Your task to perform on an android device: Go to privacy settings Image 0: 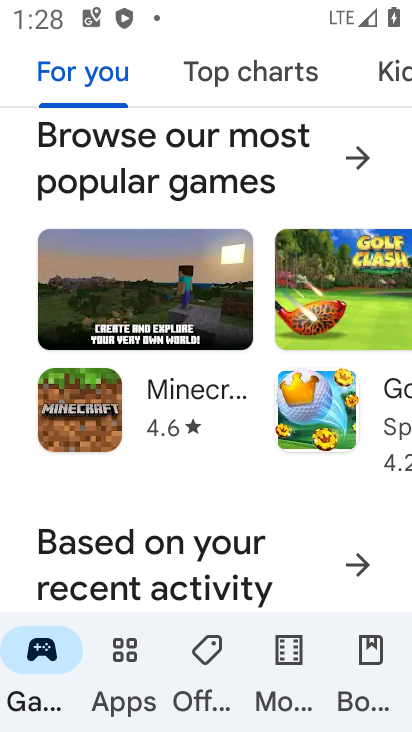
Step 0: press home button
Your task to perform on an android device: Go to privacy settings Image 1: 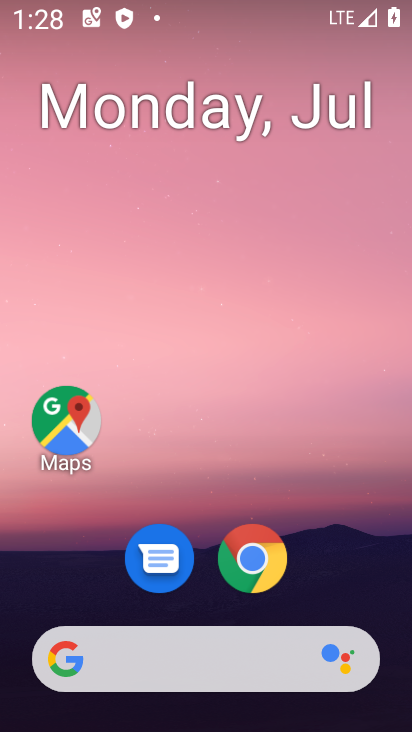
Step 1: drag from (380, 585) to (385, 133)
Your task to perform on an android device: Go to privacy settings Image 2: 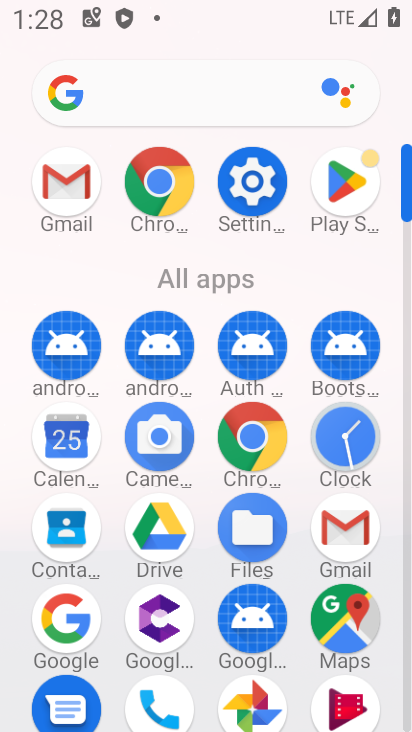
Step 2: click (269, 194)
Your task to perform on an android device: Go to privacy settings Image 3: 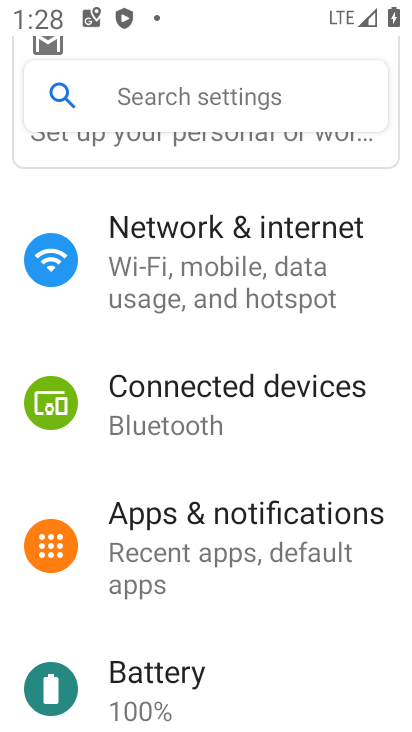
Step 3: click (363, 500)
Your task to perform on an android device: Go to privacy settings Image 4: 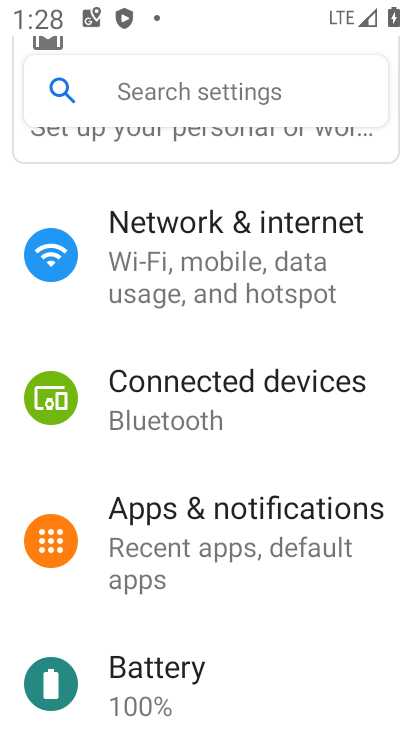
Step 4: drag from (359, 593) to (361, 499)
Your task to perform on an android device: Go to privacy settings Image 5: 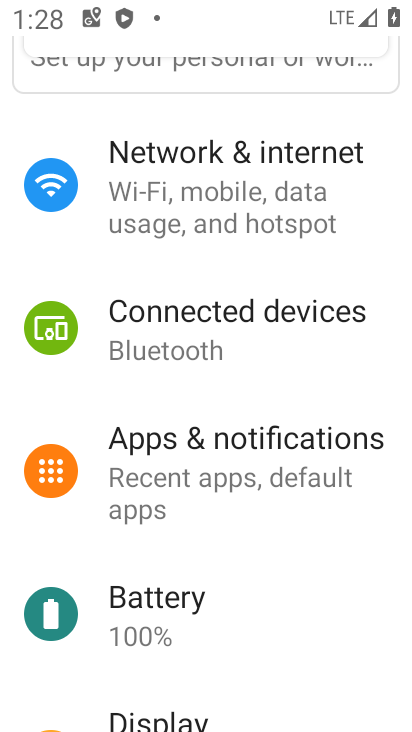
Step 5: drag from (358, 576) to (358, 493)
Your task to perform on an android device: Go to privacy settings Image 6: 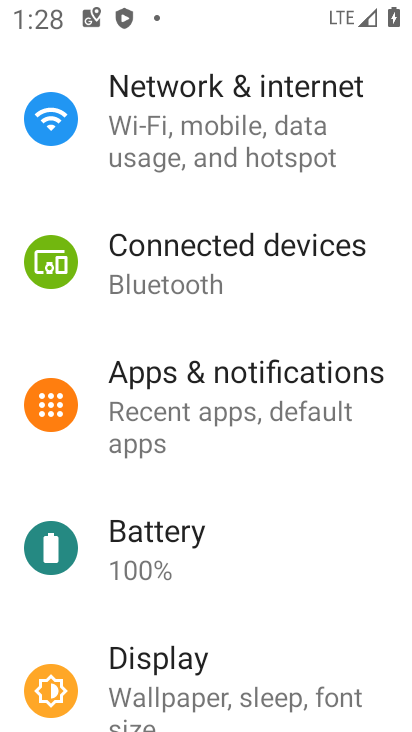
Step 6: drag from (363, 585) to (363, 504)
Your task to perform on an android device: Go to privacy settings Image 7: 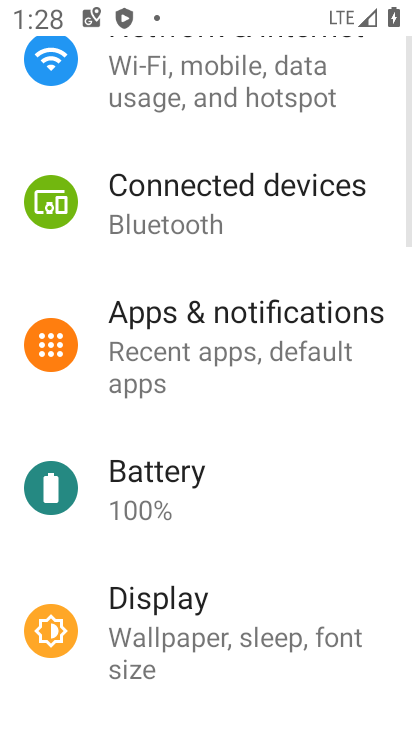
Step 7: drag from (367, 612) to (366, 490)
Your task to perform on an android device: Go to privacy settings Image 8: 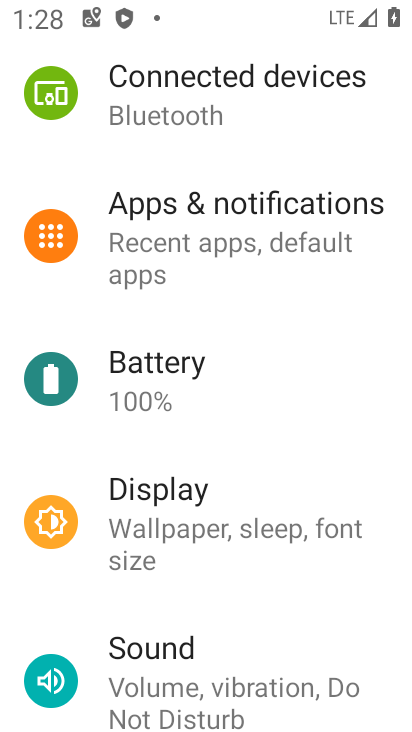
Step 8: drag from (352, 603) to (370, 505)
Your task to perform on an android device: Go to privacy settings Image 9: 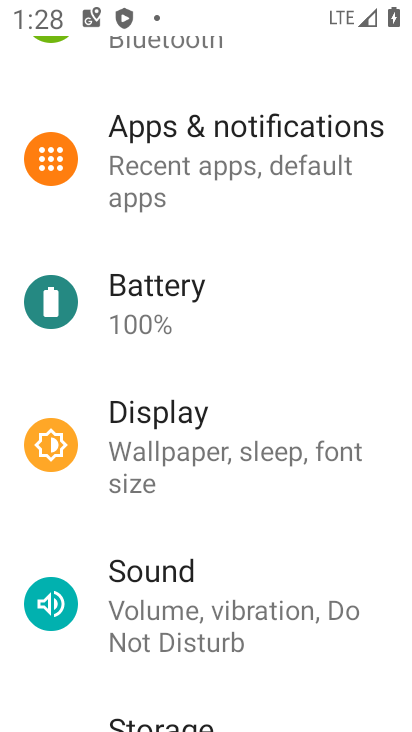
Step 9: drag from (359, 630) to (363, 513)
Your task to perform on an android device: Go to privacy settings Image 10: 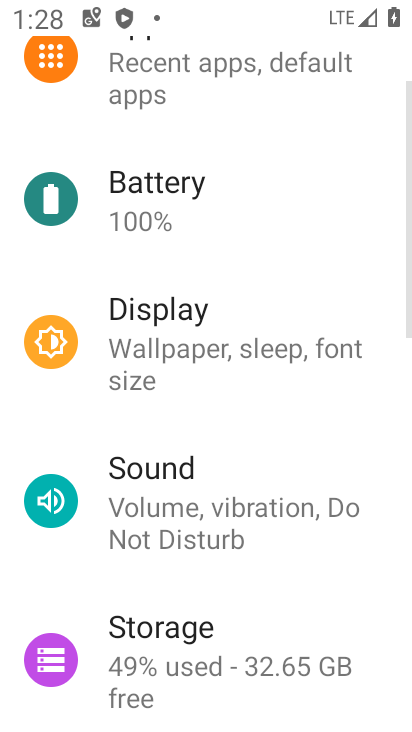
Step 10: drag from (349, 620) to (347, 524)
Your task to perform on an android device: Go to privacy settings Image 11: 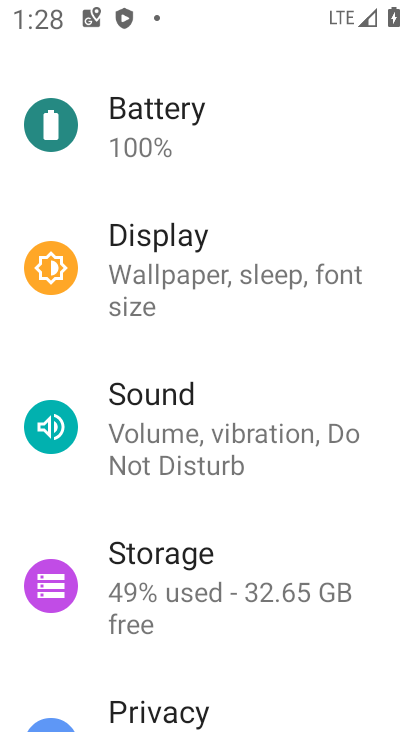
Step 11: drag from (341, 651) to (342, 526)
Your task to perform on an android device: Go to privacy settings Image 12: 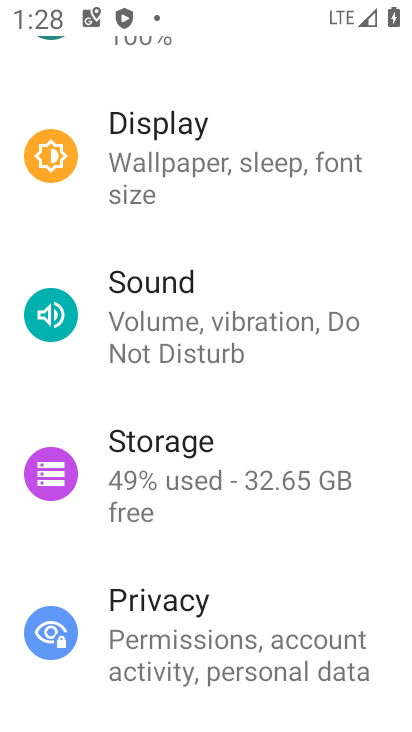
Step 12: drag from (341, 695) to (336, 564)
Your task to perform on an android device: Go to privacy settings Image 13: 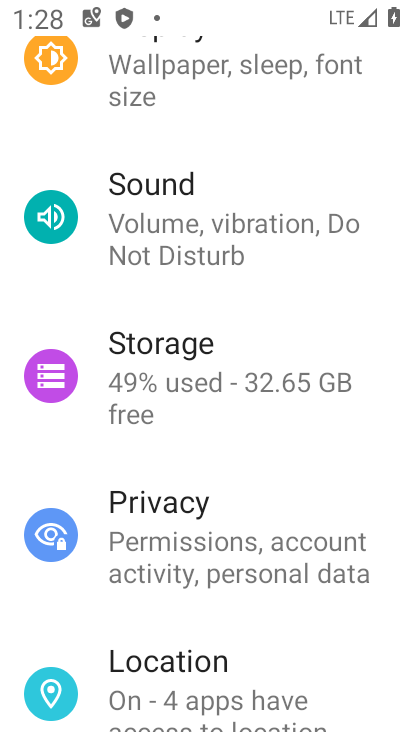
Step 13: drag from (332, 661) to (328, 556)
Your task to perform on an android device: Go to privacy settings Image 14: 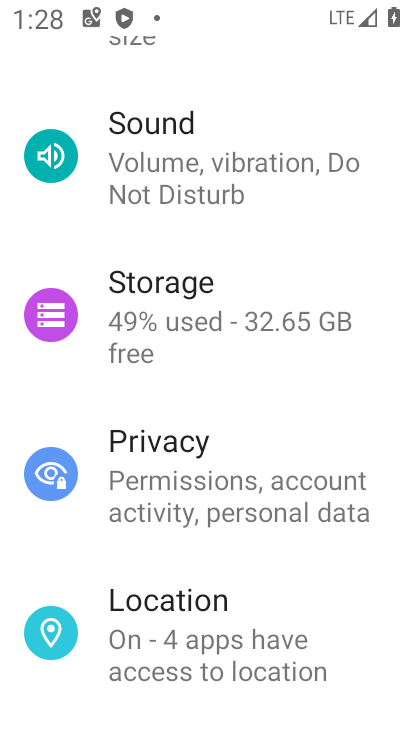
Step 14: drag from (329, 554) to (337, 358)
Your task to perform on an android device: Go to privacy settings Image 15: 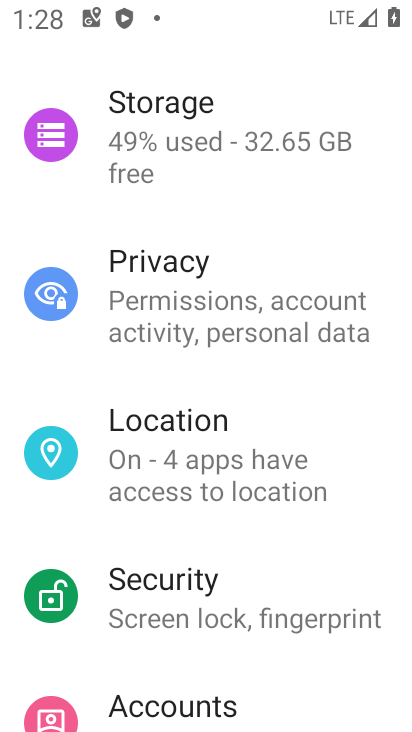
Step 15: click (335, 322)
Your task to perform on an android device: Go to privacy settings Image 16: 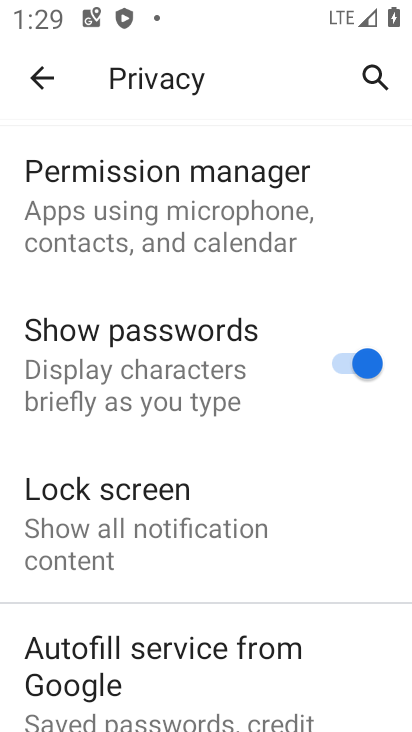
Step 16: task complete